Your task to perform on an android device: Open wifi settings Image 0: 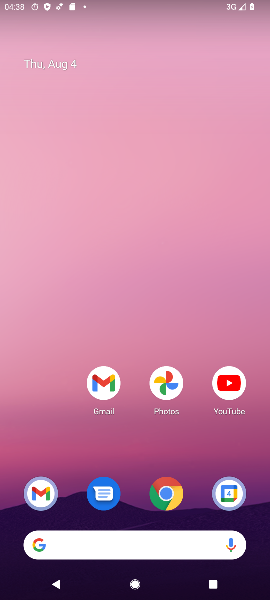
Step 0: drag from (13, 593) to (192, 23)
Your task to perform on an android device: Open wifi settings Image 1: 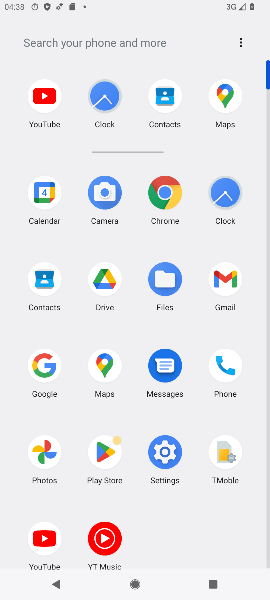
Step 1: click (161, 461)
Your task to perform on an android device: Open wifi settings Image 2: 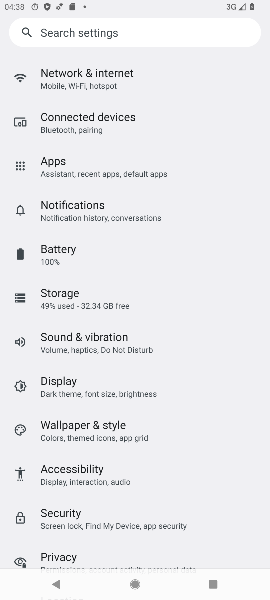
Step 2: click (77, 75)
Your task to perform on an android device: Open wifi settings Image 3: 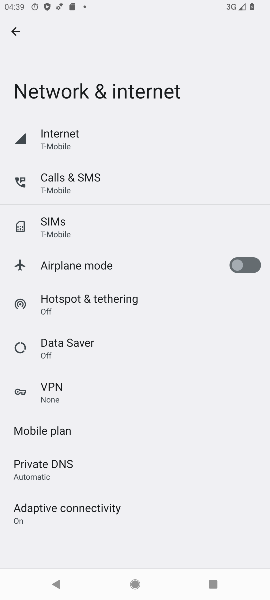
Step 3: click (82, 127)
Your task to perform on an android device: Open wifi settings Image 4: 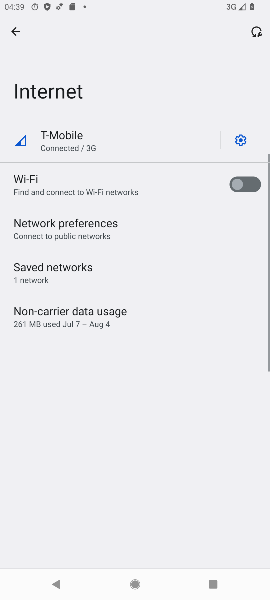
Step 4: click (251, 177)
Your task to perform on an android device: Open wifi settings Image 5: 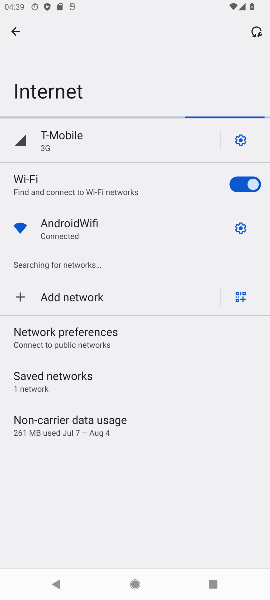
Step 5: task complete